Your task to perform on an android device: Go to calendar. Show me events next week Image 0: 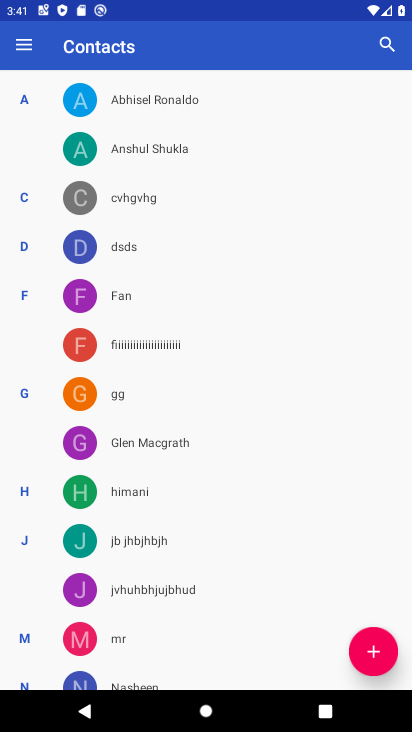
Step 0: press home button
Your task to perform on an android device: Go to calendar. Show me events next week Image 1: 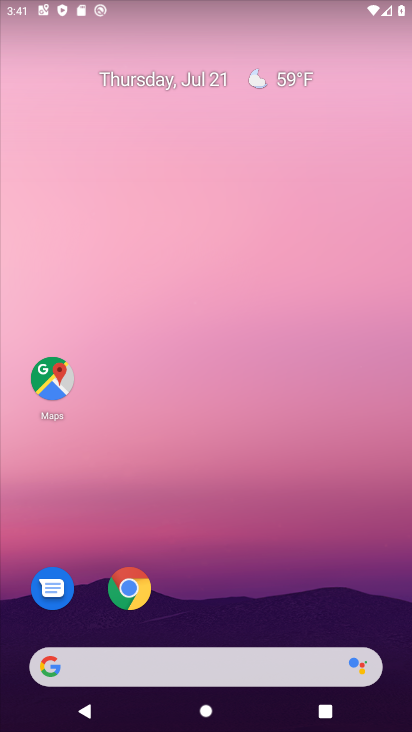
Step 1: drag from (229, 603) to (226, 121)
Your task to perform on an android device: Go to calendar. Show me events next week Image 2: 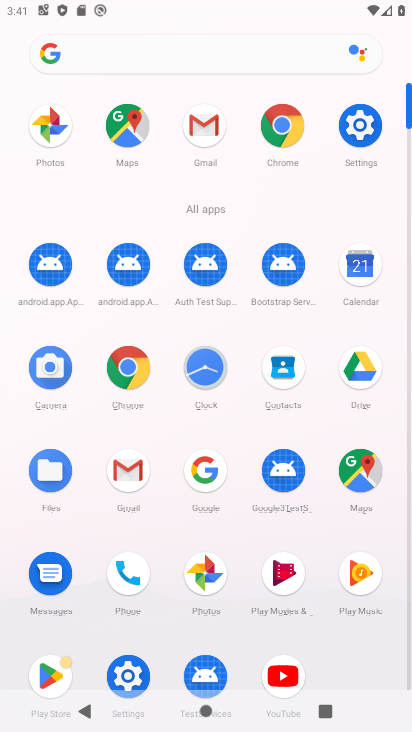
Step 2: click (375, 272)
Your task to perform on an android device: Go to calendar. Show me events next week Image 3: 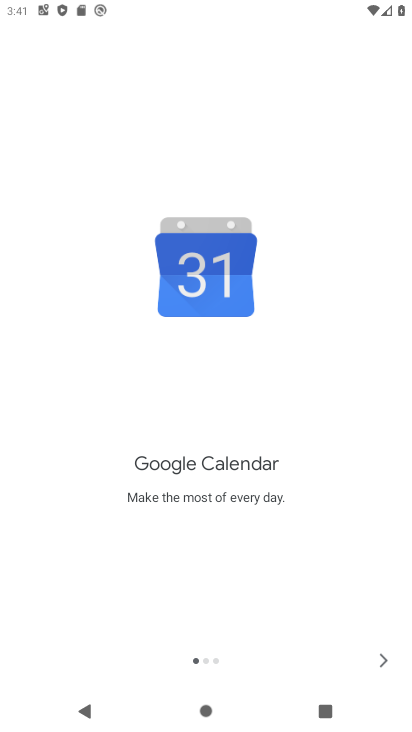
Step 3: click (380, 659)
Your task to perform on an android device: Go to calendar. Show me events next week Image 4: 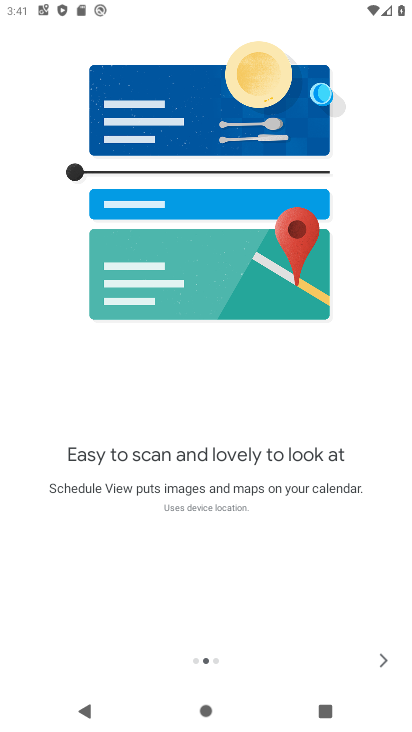
Step 4: click (380, 659)
Your task to perform on an android device: Go to calendar. Show me events next week Image 5: 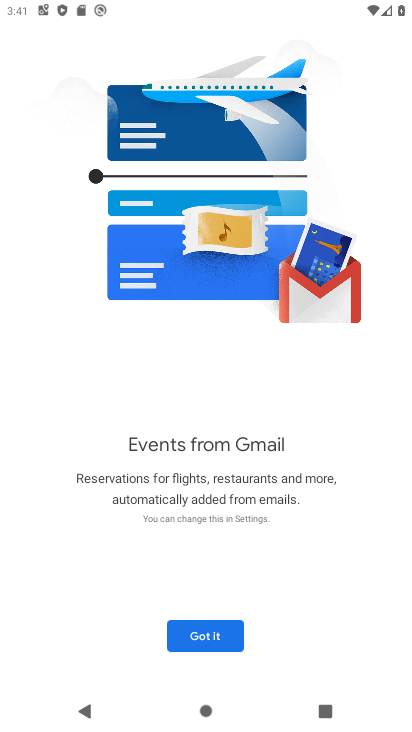
Step 5: click (218, 643)
Your task to perform on an android device: Go to calendar. Show me events next week Image 6: 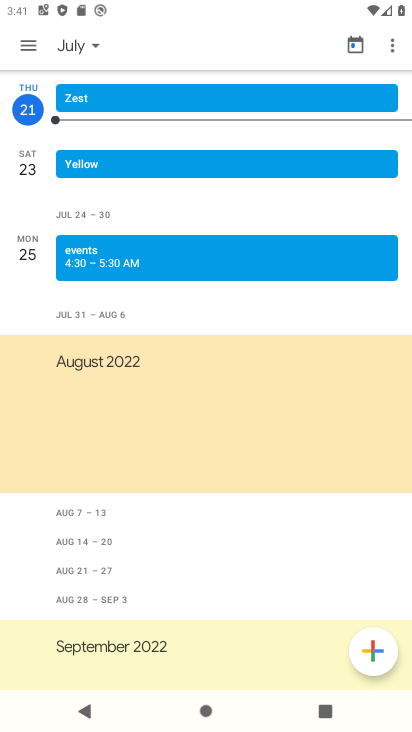
Step 6: click (31, 50)
Your task to perform on an android device: Go to calendar. Show me events next week Image 7: 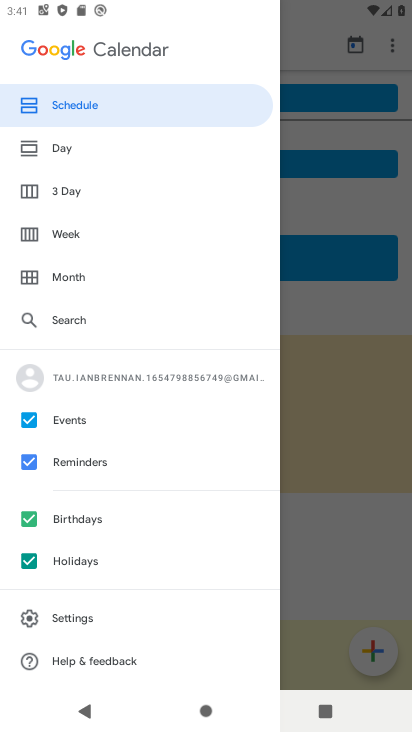
Step 7: click (78, 461)
Your task to perform on an android device: Go to calendar. Show me events next week Image 8: 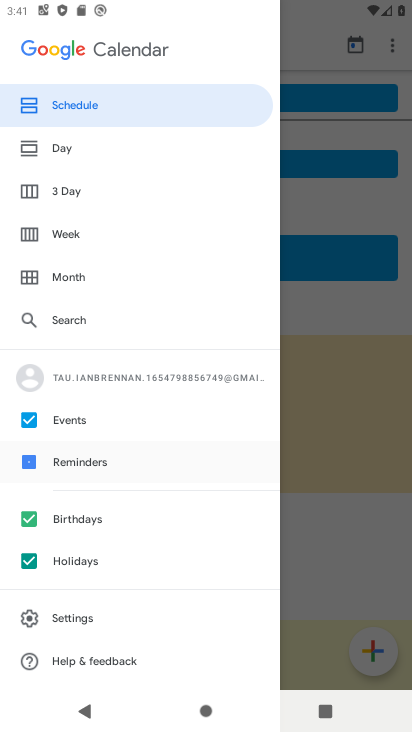
Step 8: click (72, 528)
Your task to perform on an android device: Go to calendar. Show me events next week Image 9: 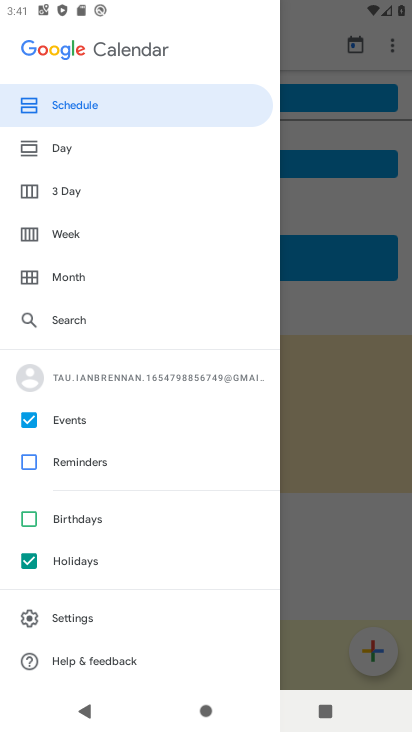
Step 9: click (75, 555)
Your task to perform on an android device: Go to calendar. Show me events next week Image 10: 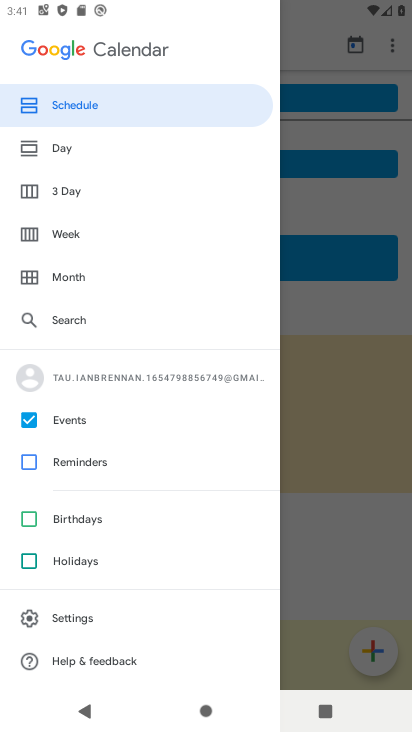
Step 10: click (73, 234)
Your task to perform on an android device: Go to calendar. Show me events next week Image 11: 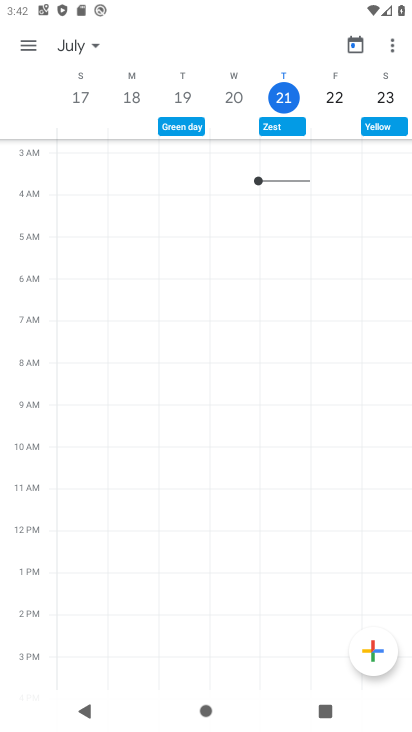
Step 11: task complete